Your task to perform on an android device: Is it going to rain this weekend? Image 0: 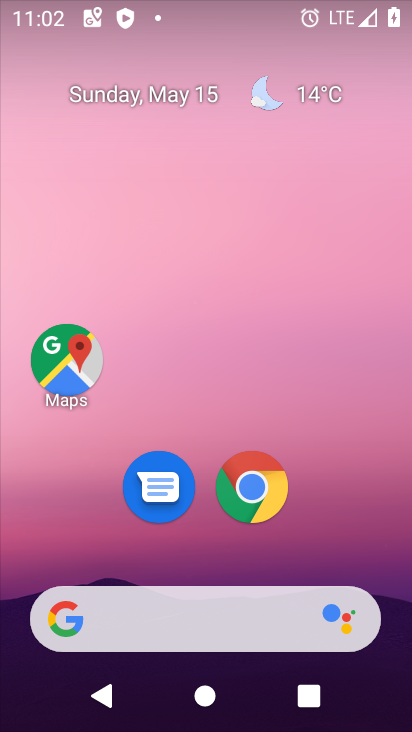
Step 0: click (318, 85)
Your task to perform on an android device: Is it going to rain this weekend? Image 1: 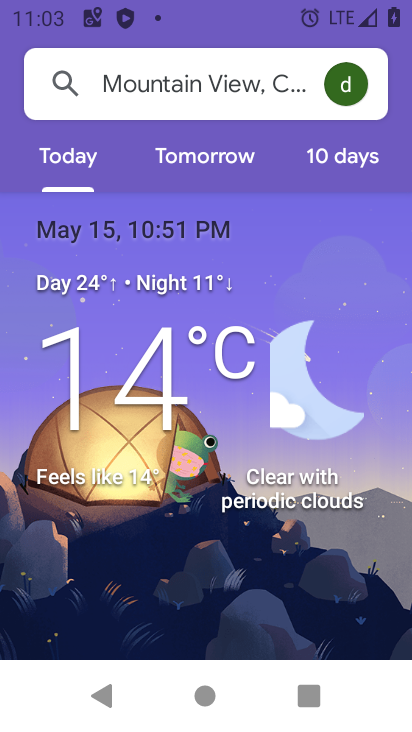
Step 1: click (342, 157)
Your task to perform on an android device: Is it going to rain this weekend? Image 2: 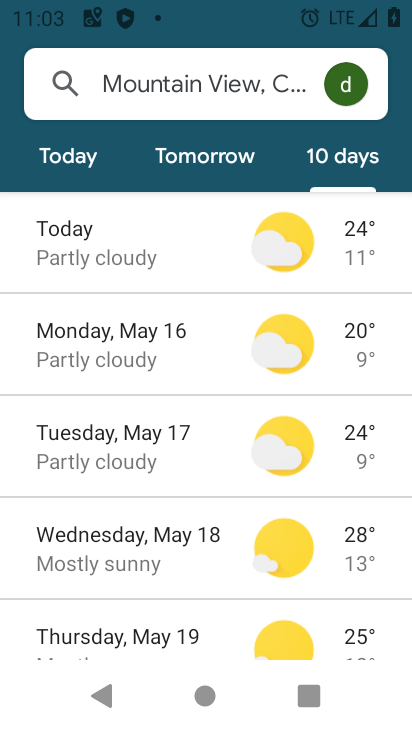
Step 2: task complete